Your task to perform on an android device: Check the news Image 0: 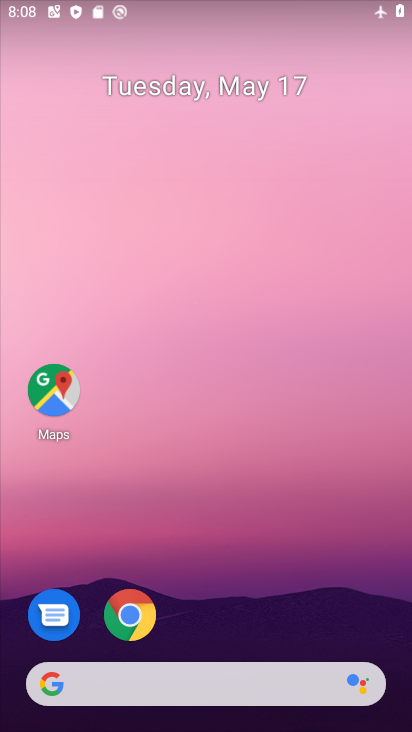
Step 0: click (132, 609)
Your task to perform on an android device: Check the news Image 1: 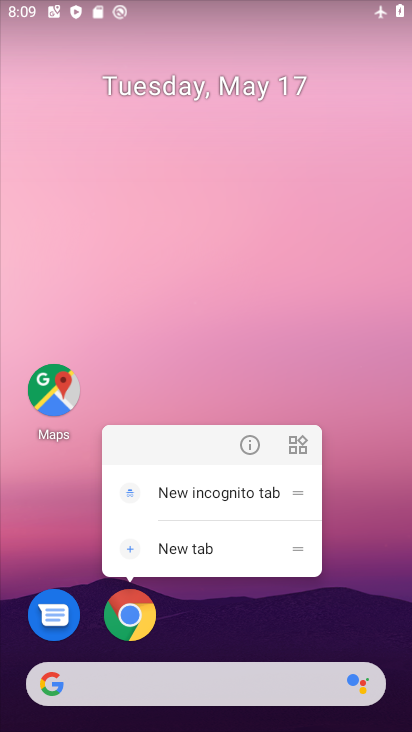
Step 1: click (126, 608)
Your task to perform on an android device: Check the news Image 2: 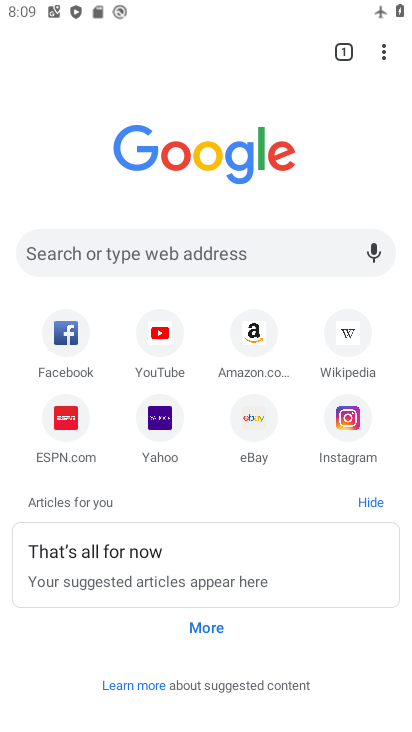
Step 2: click (254, 244)
Your task to perform on an android device: Check the news Image 3: 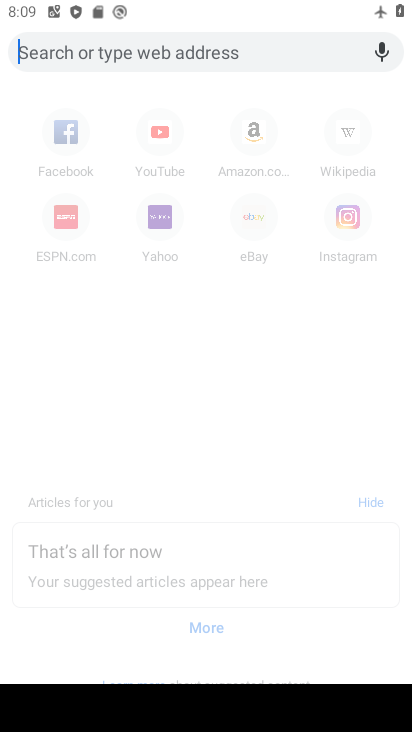
Step 3: type "Check the news"
Your task to perform on an android device: Check the news Image 4: 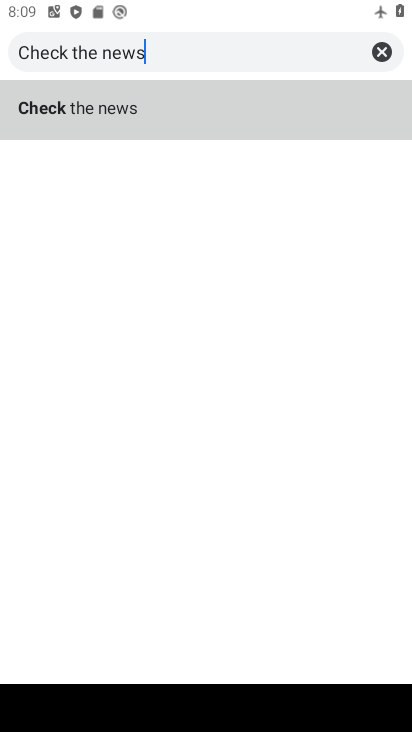
Step 4: click (243, 84)
Your task to perform on an android device: Check the news Image 5: 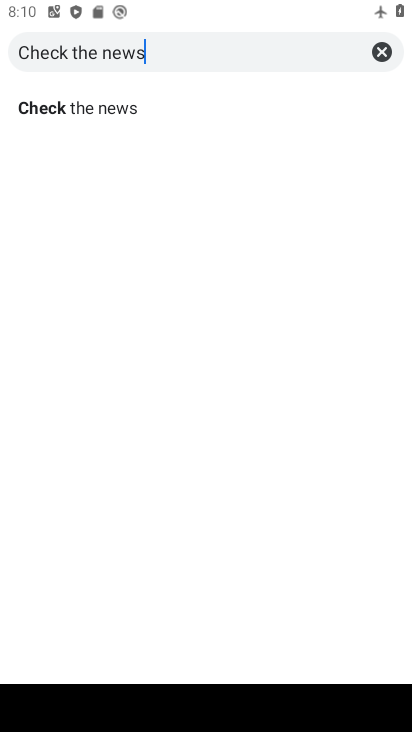
Step 5: click (135, 107)
Your task to perform on an android device: Check the news Image 6: 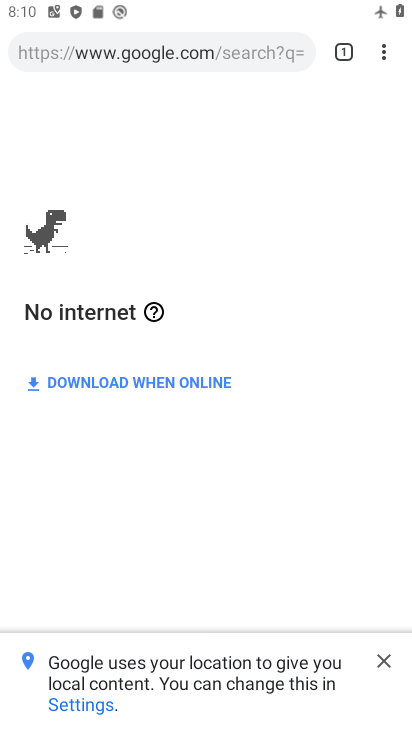
Step 6: task complete